Your task to perform on an android device: Go to eBay Image 0: 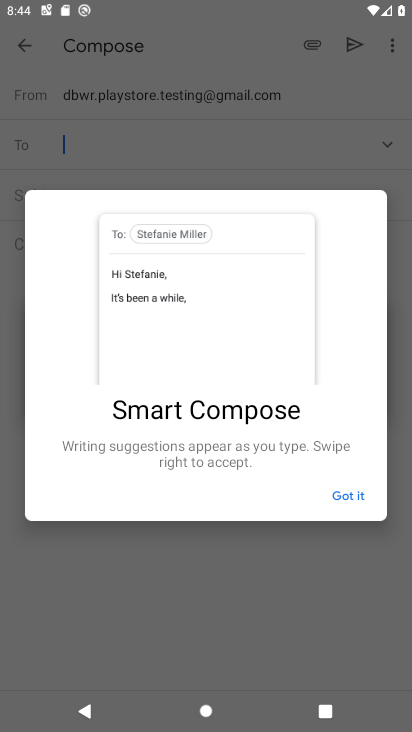
Step 0: press home button
Your task to perform on an android device: Go to eBay Image 1: 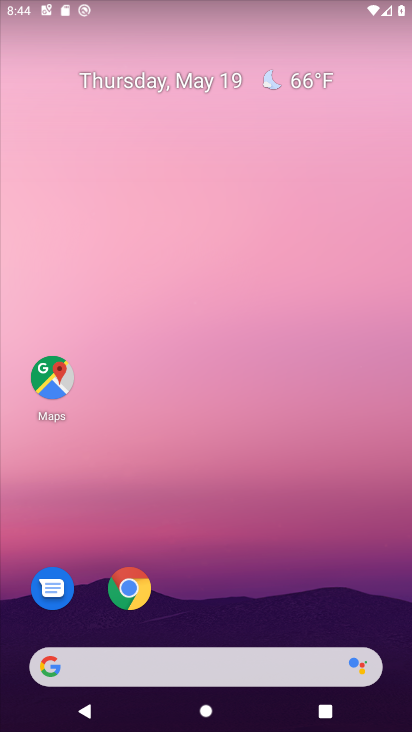
Step 1: drag from (368, 597) to (312, 146)
Your task to perform on an android device: Go to eBay Image 2: 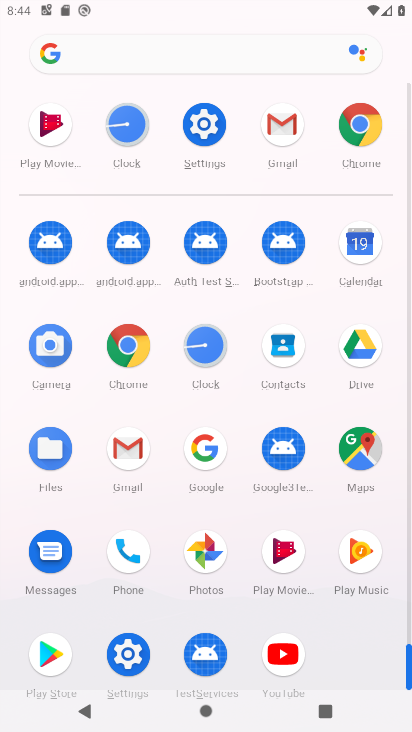
Step 2: click (151, 357)
Your task to perform on an android device: Go to eBay Image 3: 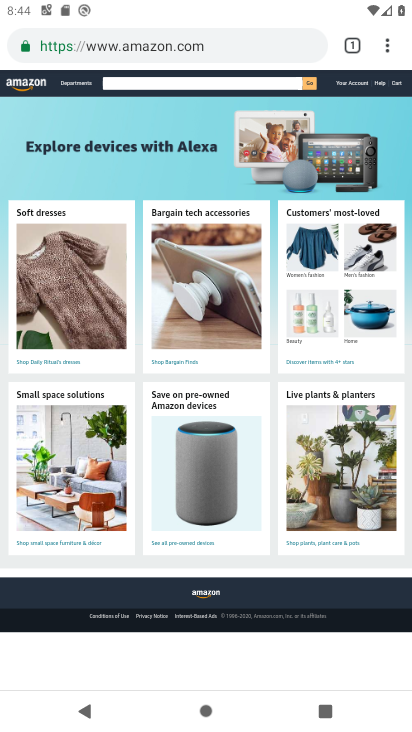
Step 3: press back button
Your task to perform on an android device: Go to eBay Image 4: 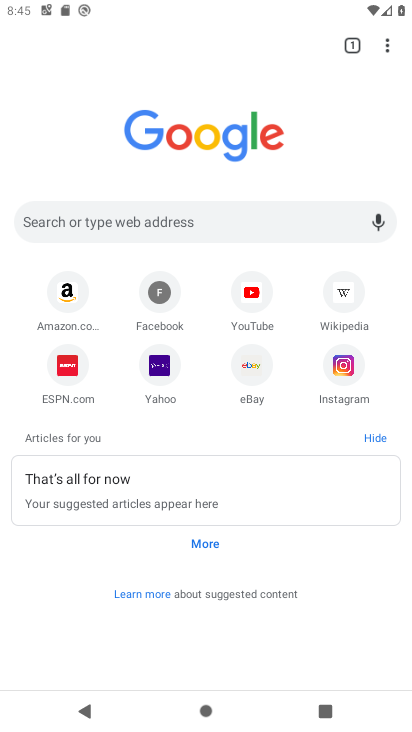
Step 4: click (253, 371)
Your task to perform on an android device: Go to eBay Image 5: 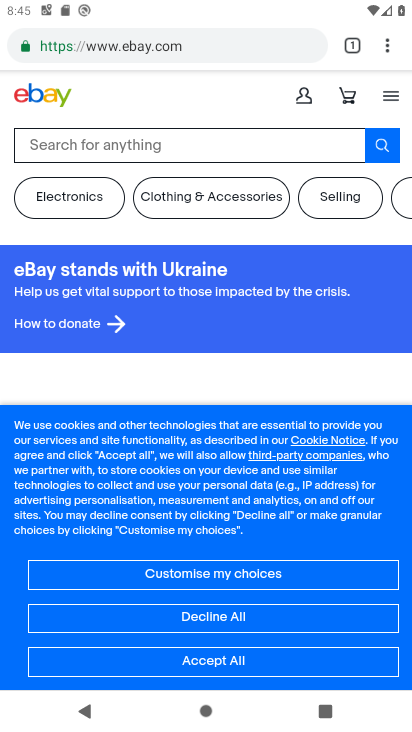
Step 5: task complete